Your task to perform on an android device: turn on priority inbox in the gmail app Image 0: 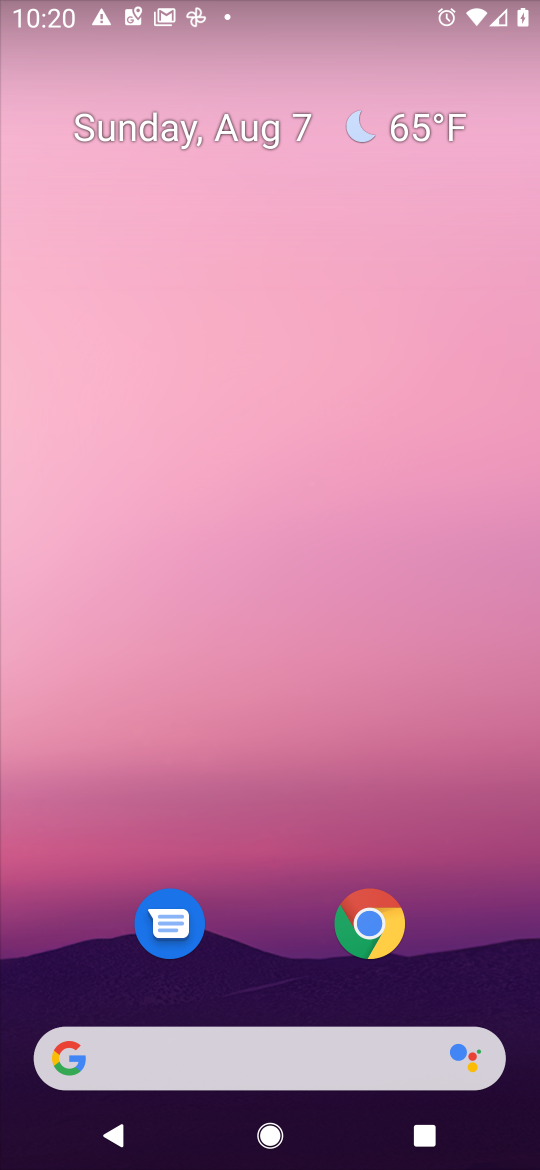
Step 0: drag from (484, 911) to (249, 73)
Your task to perform on an android device: turn on priority inbox in the gmail app Image 1: 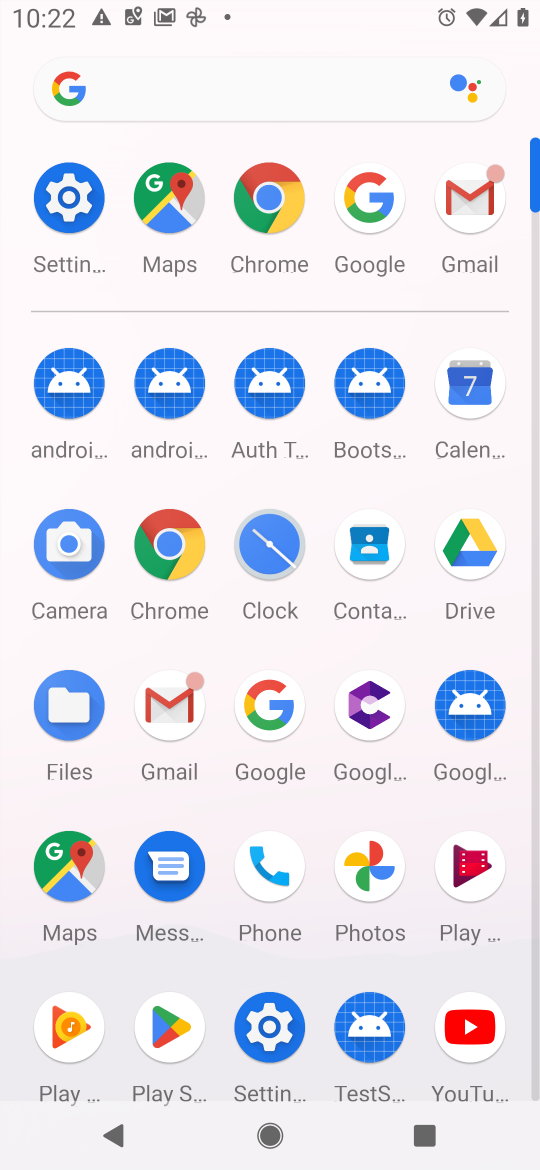
Step 1: click (176, 686)
Your task to perform on an android device: turn on priority inbox in the gmail app Image 2: 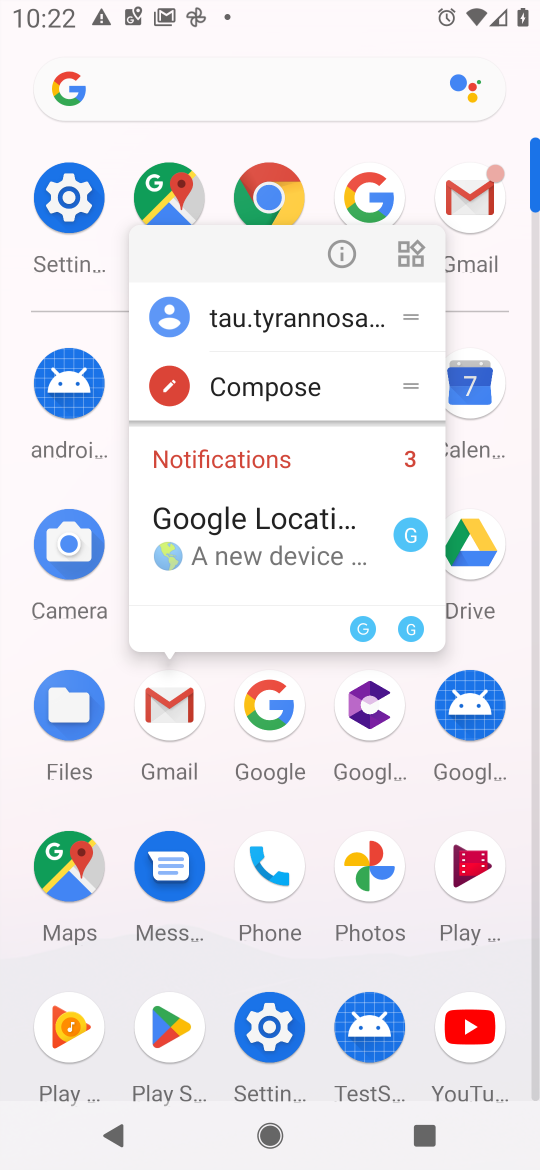
Step 2: click (176, 686)
Your task to perform on an android device: turn on priority inbox in the gmail app Image 3: 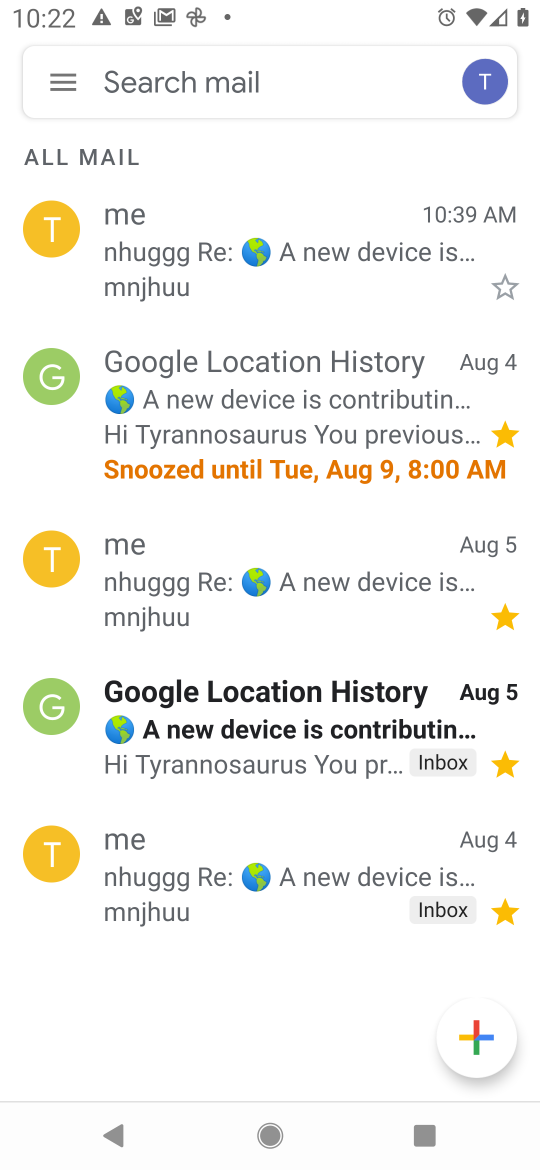
Step 3: click (64, 91)
Your task to perform on an android device: turn on priority inbox in the gmail app Image 4: 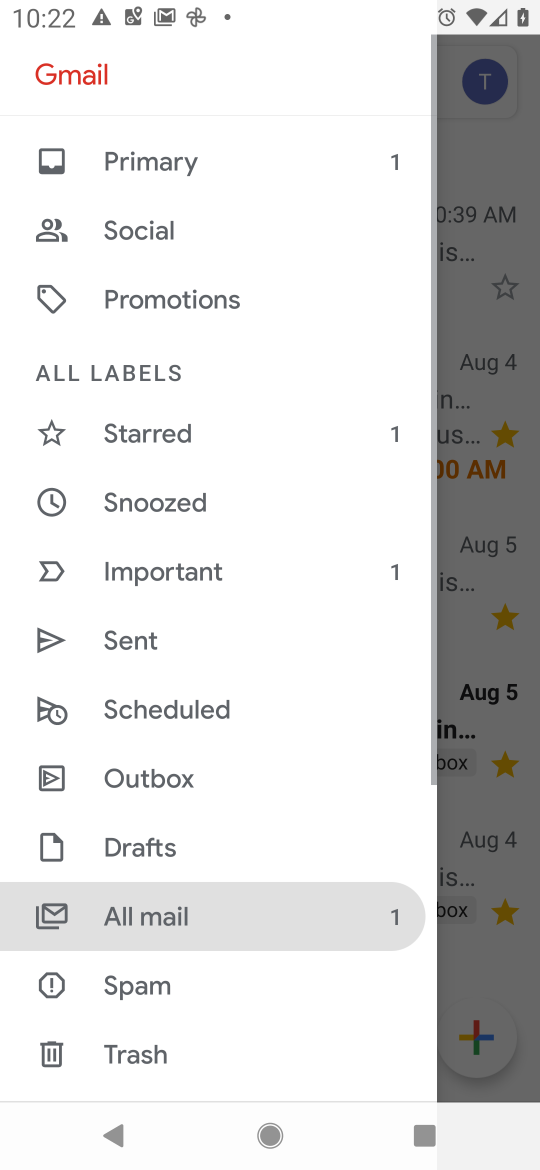
Step 4: drag from (199, 1047) to (160, 161)
Your task to perform on an android device: turn on priority inbox in the gmail app Image 5: 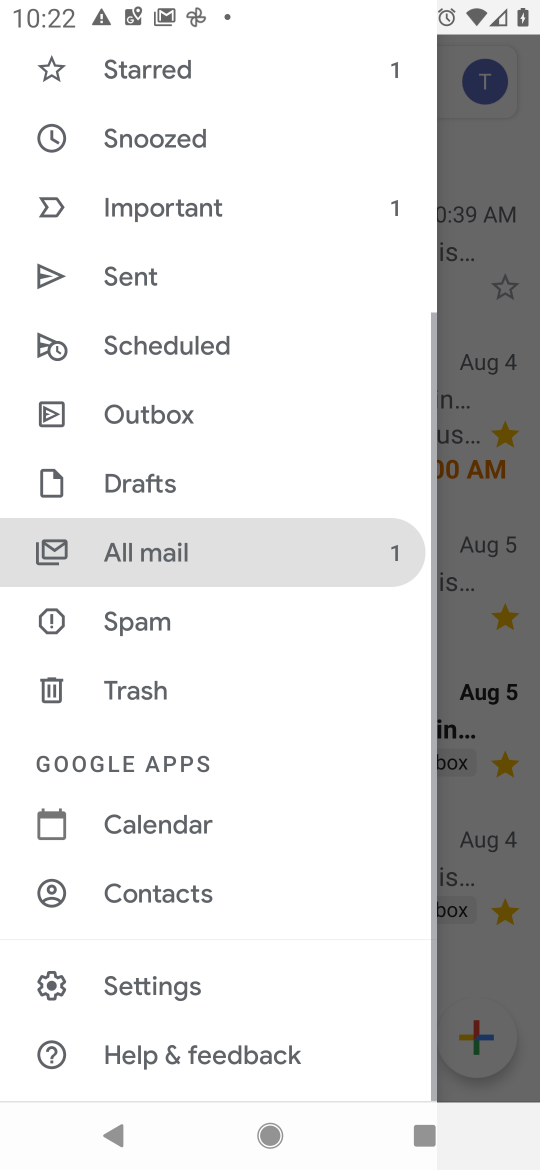
Step 5: click (178, 996)
Your task to perform on an android device: turn on priority inbox in the gmail app Image 6: 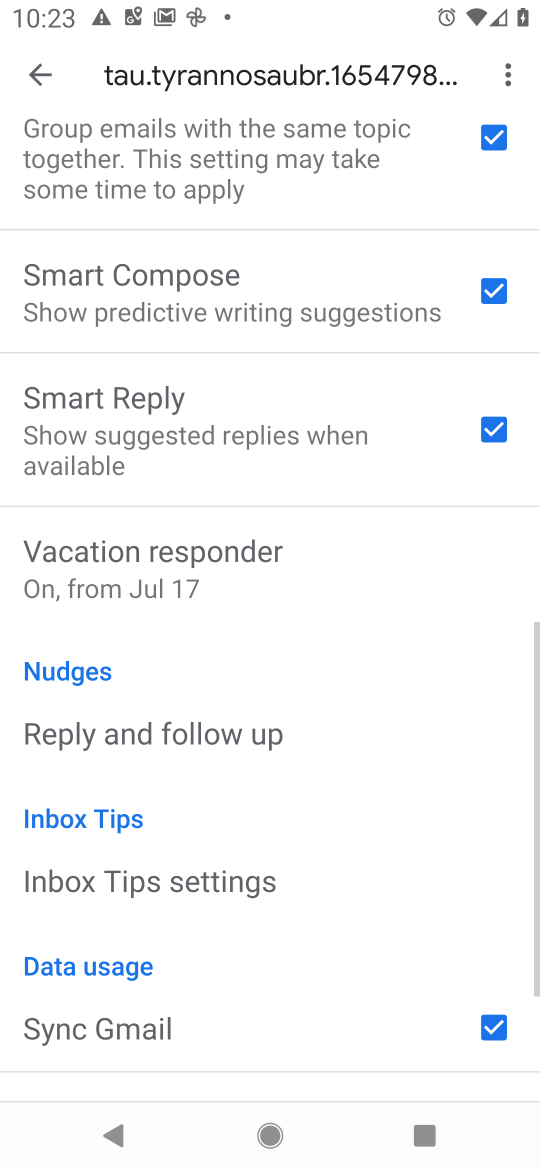
Step 6: drag from (59, 171) to (169, 1156)
Your task to perform on an android device: turn on priority inbox in the gmail app Image 7: 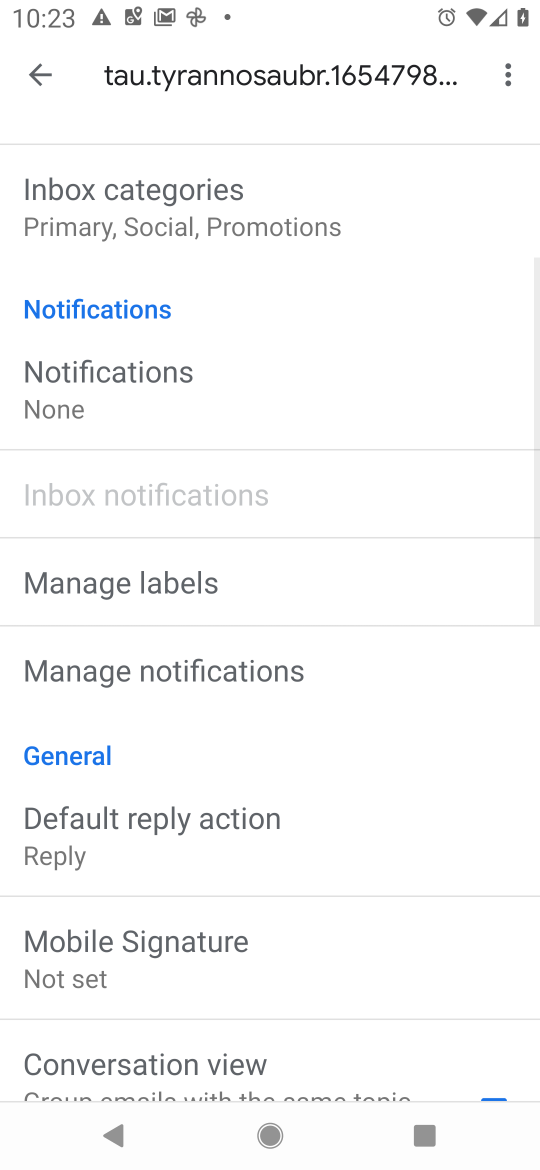
Step 7: drag from (143, 300) to (209, 1110)
Your task to perform on an android device: turn on priority inbox in the gmail app Image 8: 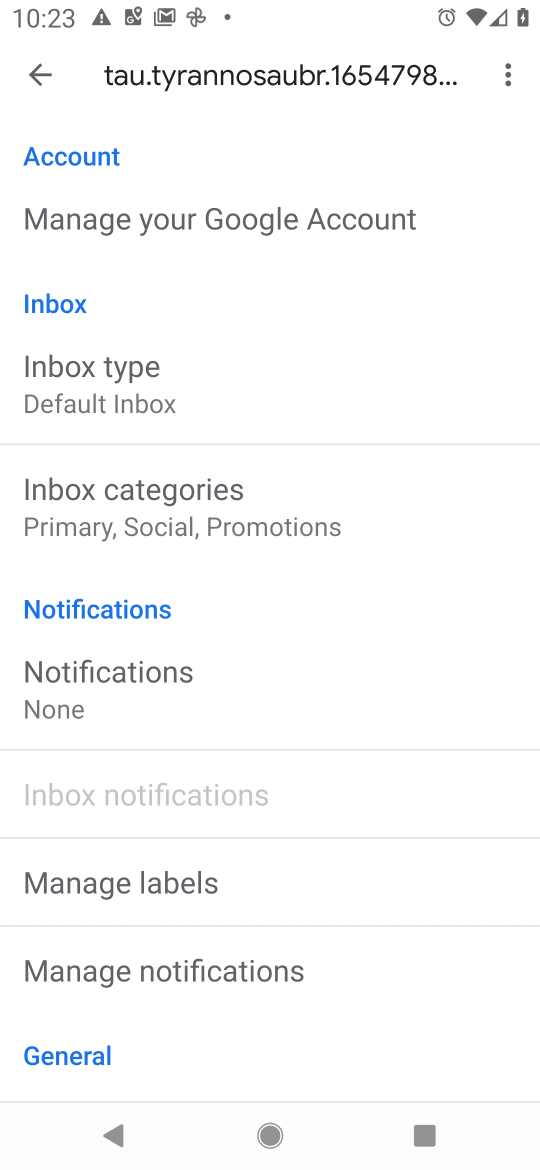
Step 8: click (85, 408)
Your task to perform on an android device: turn on priority inbox in the gmail app Image 9: 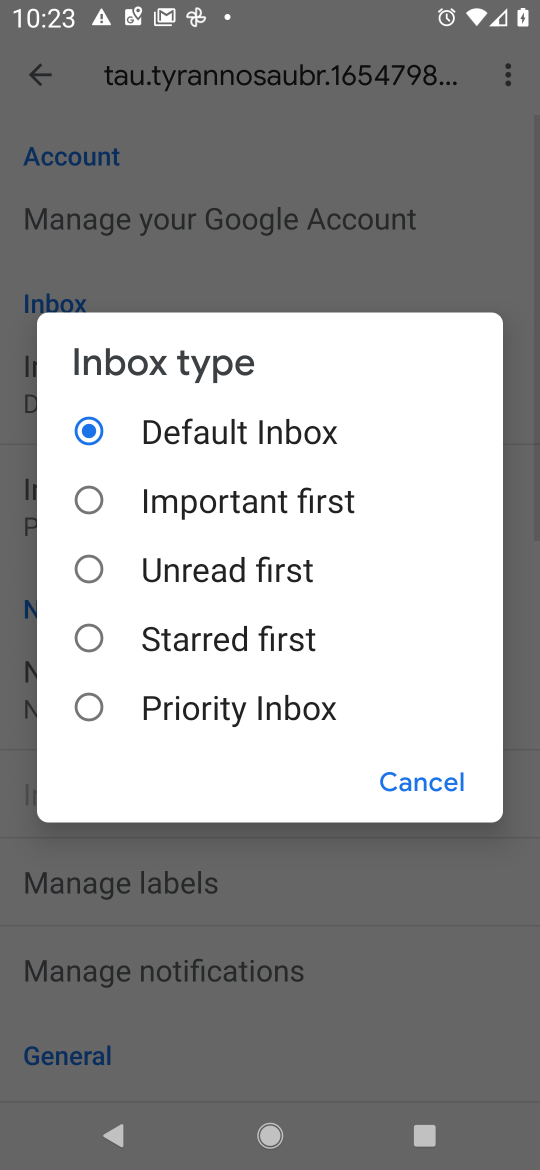
Step 9: click (114, 711)
Your task to perform on an android device: turn on priority inbox in the gmail app Image 10: 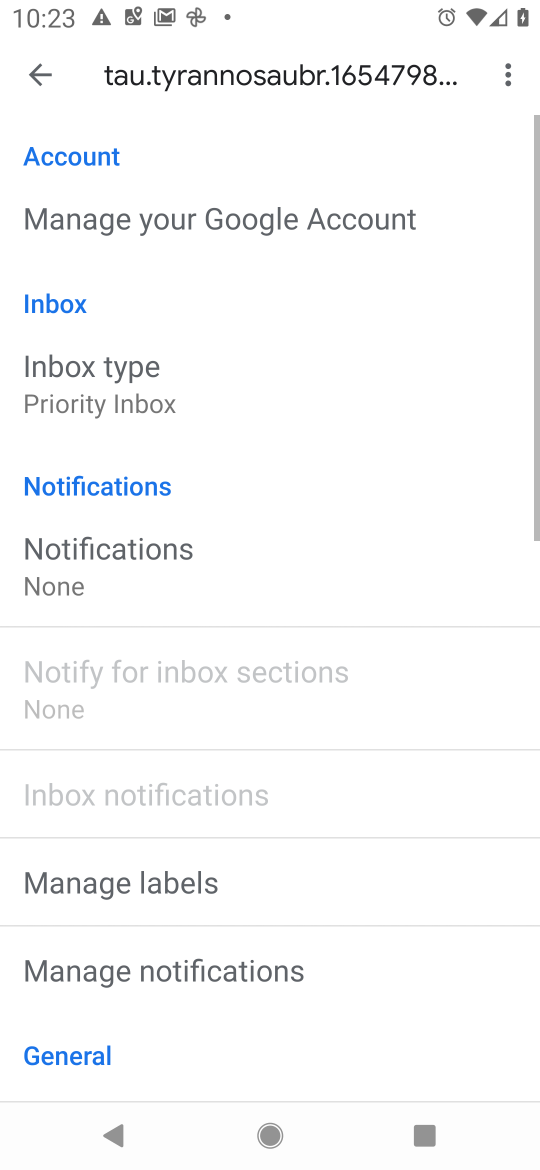
Step 10: task complete